Your task to perform on an android device: toggle notifications settings in the gmail app Image 0: 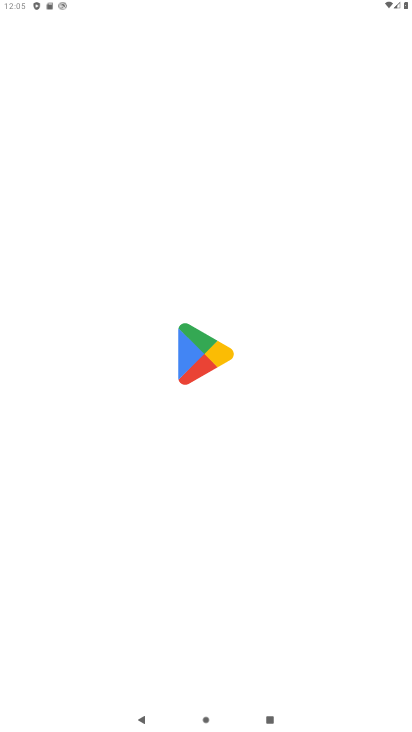
Step 0: drag from (220, 704) to (209, 234)
Your task to perform on an android device: toggle notifications settings in the gmail app Image 1: 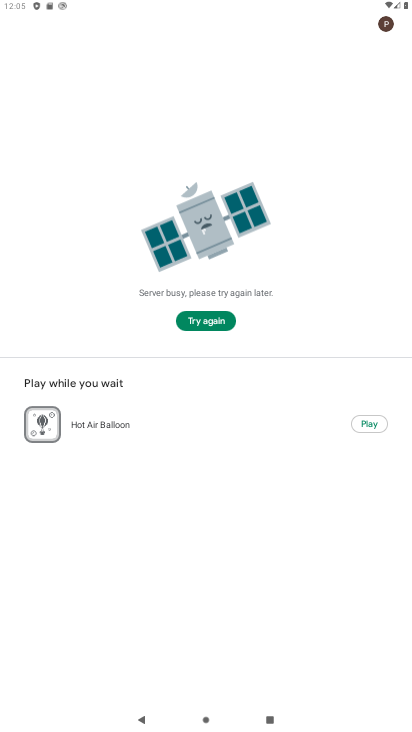
Step 1: press home button
Your task to perform on an android device: toggle notifications settings in the gmail app Image 2: 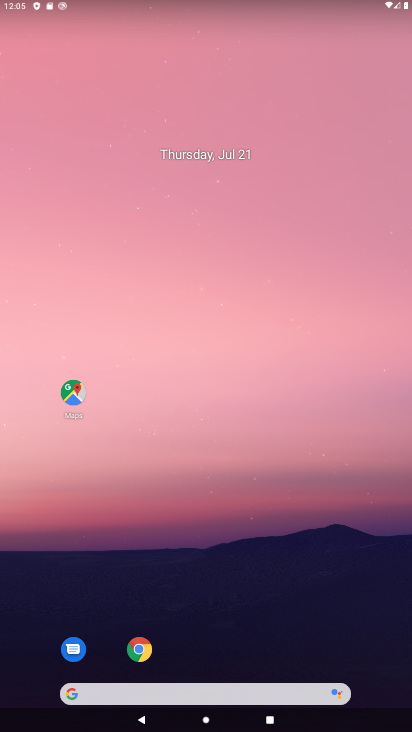
Step 2: drag from (227, 673) to (206, 156)
Your task to perform on an android device: toggle notifications settings in the gmail app Image 3: 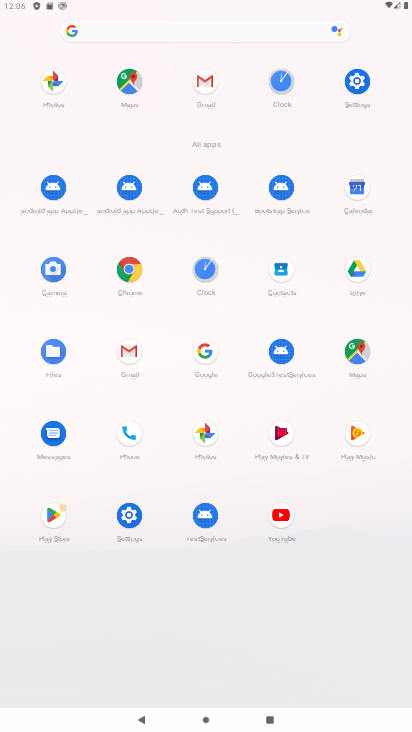
Step 3: click (137, 349)
Your task to perform on an android device: toggle notifications settings in the gmail app Image 4: 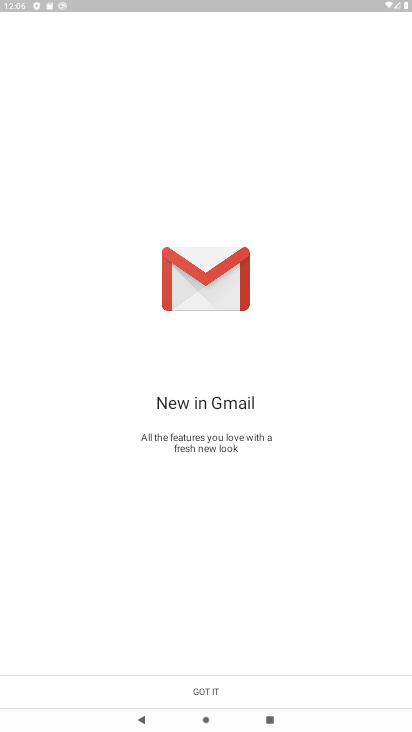
Step 4: click (210, 683)
Your task to perform on an android device: toggle notifications settings in the gmail app Image 5: 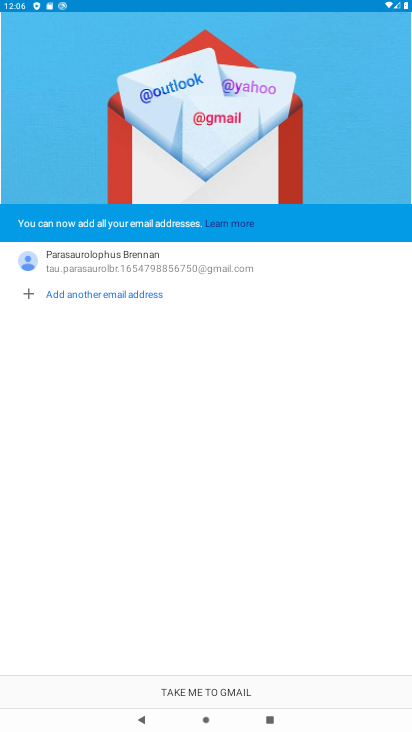
Step 5: click (210, 687)
Your task to perform on an android device: toggle notifications settings in the gmail app Image 6: 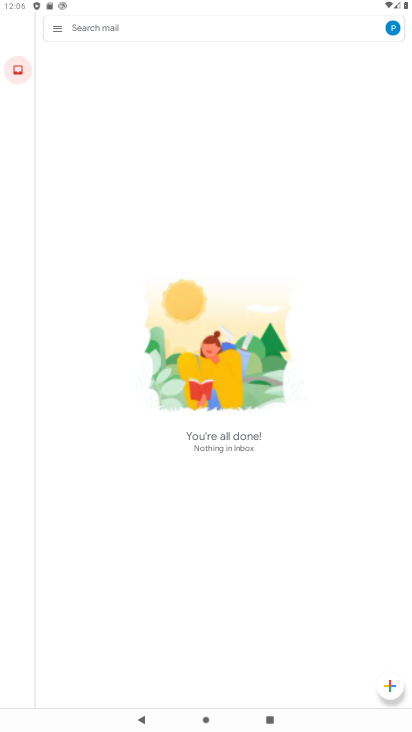
Step 6: click (55, 24)
Your task to perform on an android device: toggle notifications settings in the gmail app Image 7: 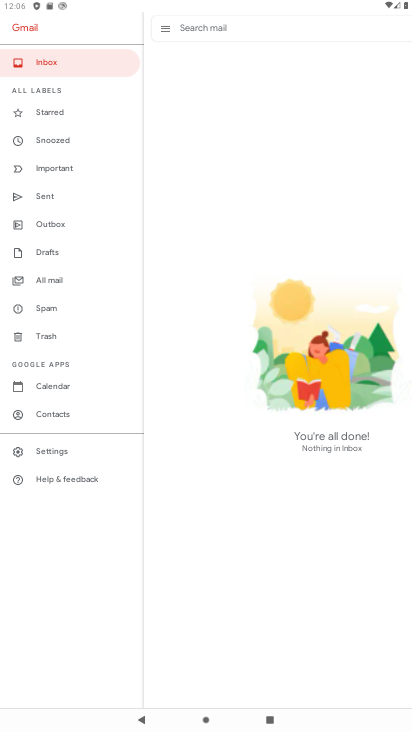
Step 7: click (53, 450)
Your task to perform on an android device: toggle notifications settings in the gmail app Image 8: 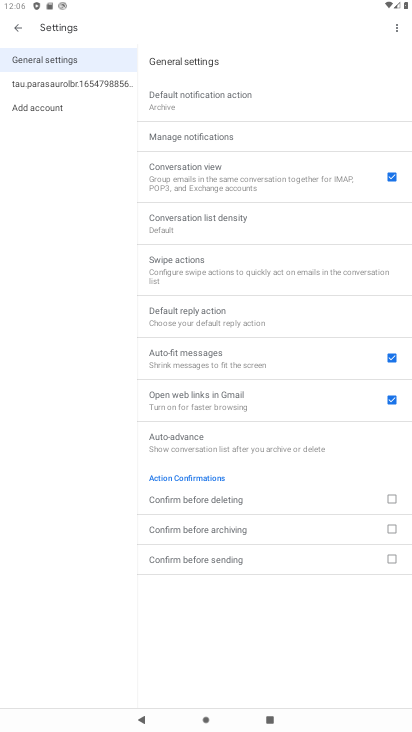
Step 8: click (92, 82)
Your task to perform on an android device: toggle notifications settings in the gmail app Image 9: 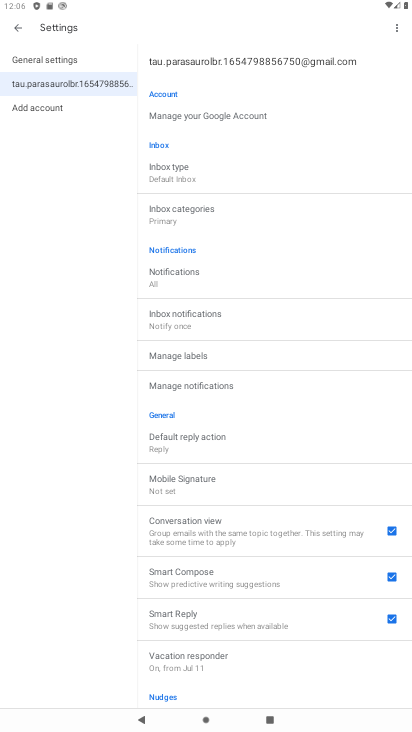
Step 9: click (178, 273)
Your task to perform on an android device: toggle notifications settings in the gmail app Image 10: 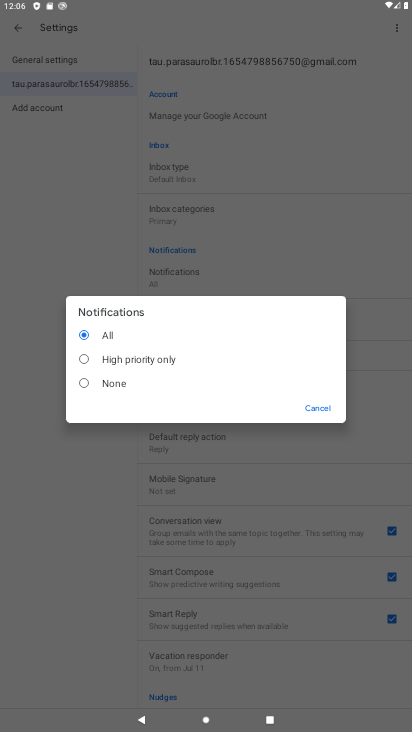
Step 10: click (83, 354)
Your task to perform on an android device: toggle notifications settings in the gmail app Image 11: 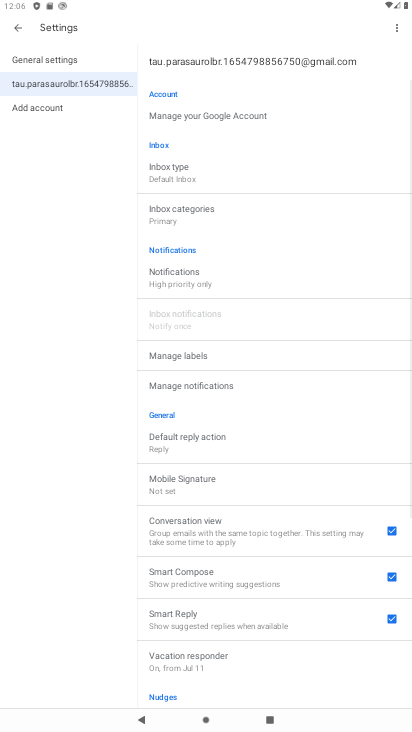
Step 11: task complete